Your task to perform on an android device: open a bookmark in the chrome app Image 0: 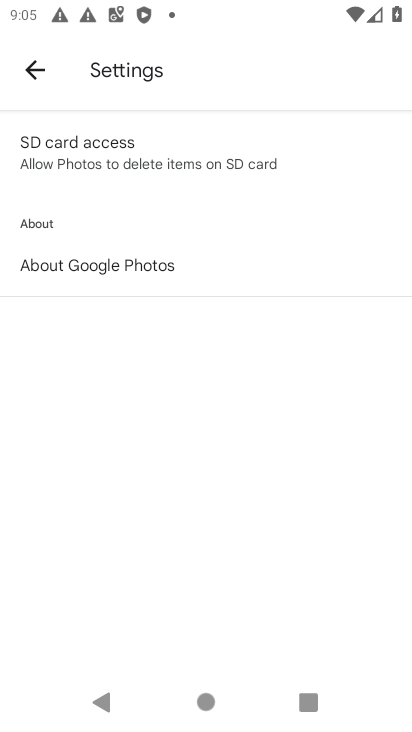
Step 0: press home button
Your task to perform on an android device: open a bookmark in the chrome app Image 1: 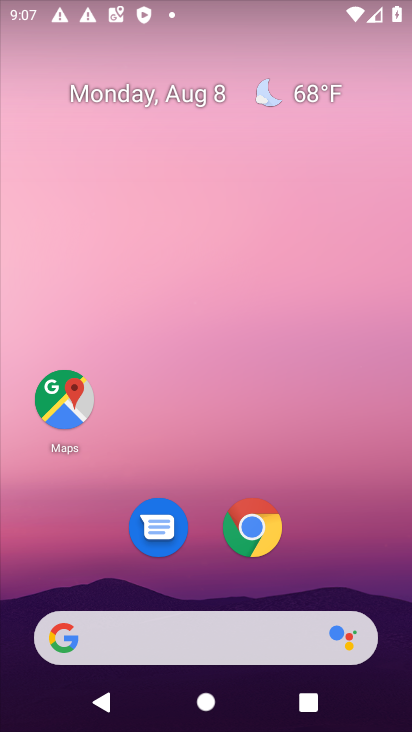
Step 1: click (252, 530)
Your task to perform on an android device: open a bookmark in the chrome app Image 2: 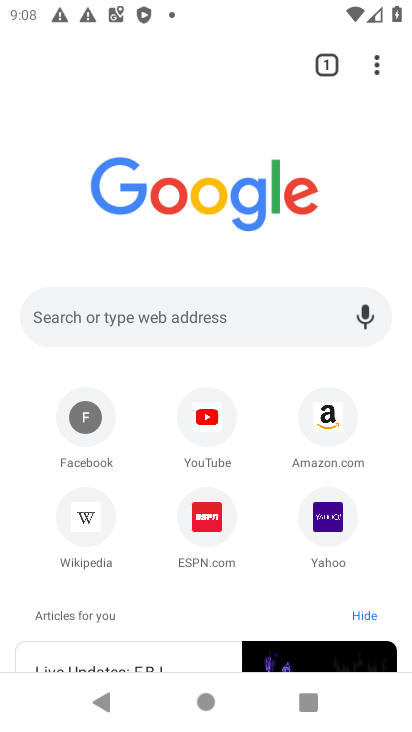
Step 2: click (372, 58)
Your task to perform on an android device: open a bookmark in the chrome app Image 3: 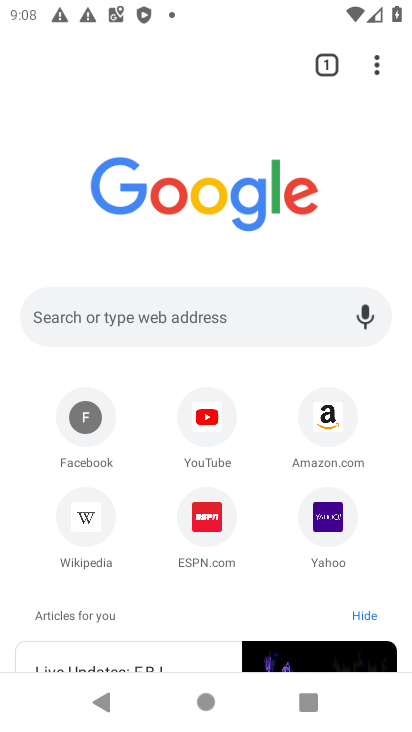
Step 3: click (372, 58)
Your task to perform on an android device: open a bookmark in the chrome app Image 4: 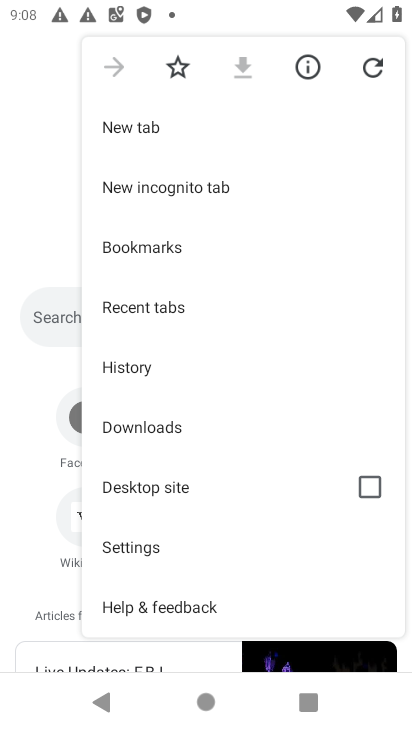
Step 4: click (145, 241)
Your task to perform on an android device: open a bookmark in the chrome app Image 5: 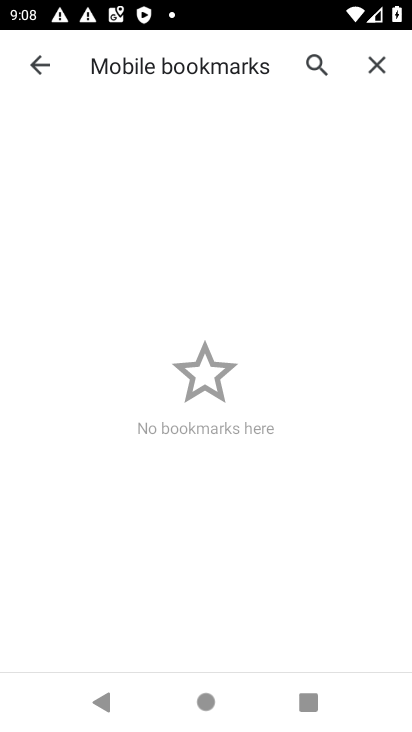
Step 5: task complete